Your task to perform on an android device: change your default location settings in chrome Image 0: 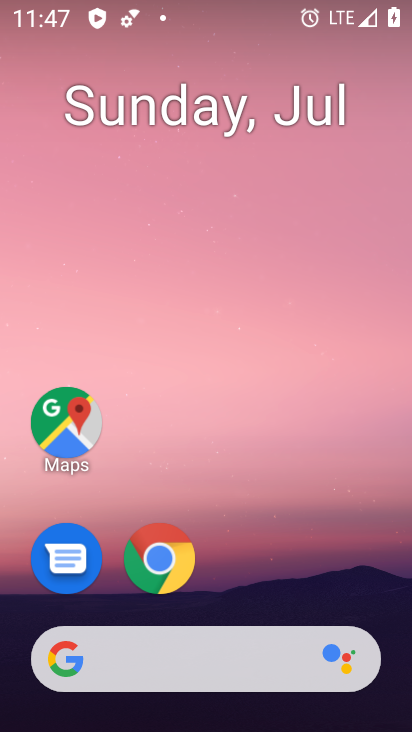
Step 0: click (148, 549)
Your task to perform on an android device: change your default location settings in chrome Image 1: 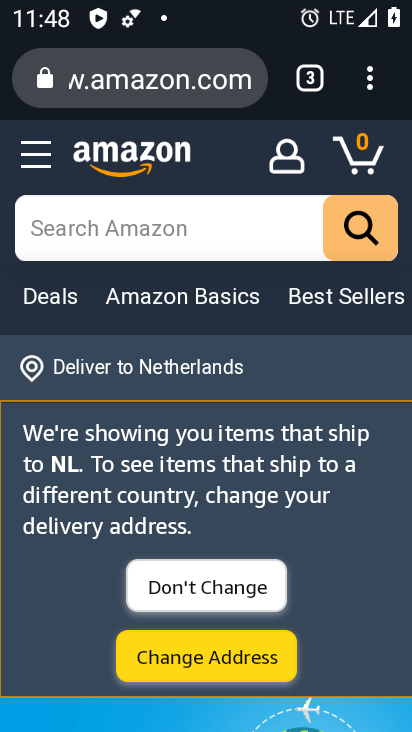
Step 1: click (372, 71)
Your task to perform on an android device: change your default location settings in chrome Image 2: 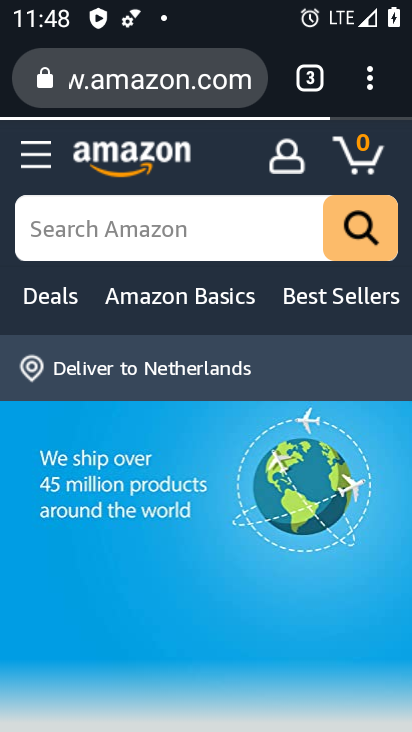
Step 2: click (375, 77)
Your task to perform on an android device: change your default location settings in chrome Image 3: 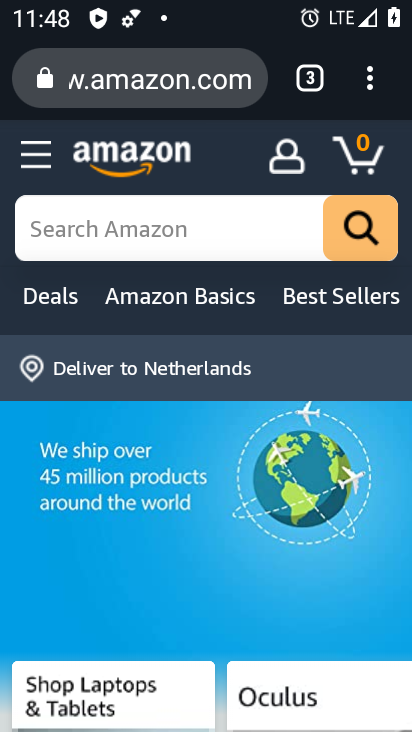
Step 3: drag from (360, 67) to (103, 611)
Your task to perform on an android device: change your default location settings in chrome Image 4: 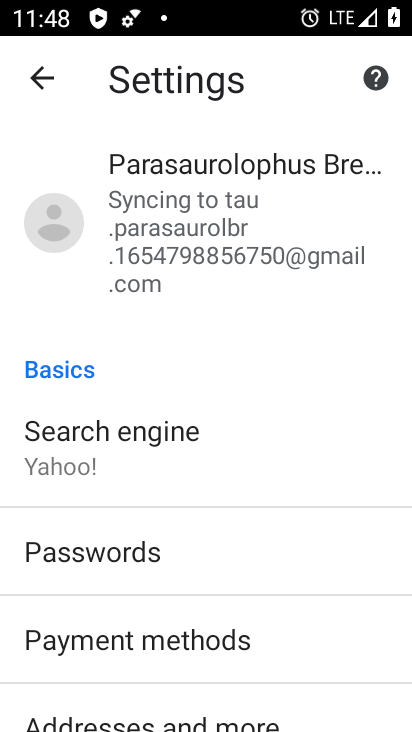
Step 4: drag from (136, 653) to (180, 134)
Your task to perform on an android device: change your default location settings in chrome Image 5: 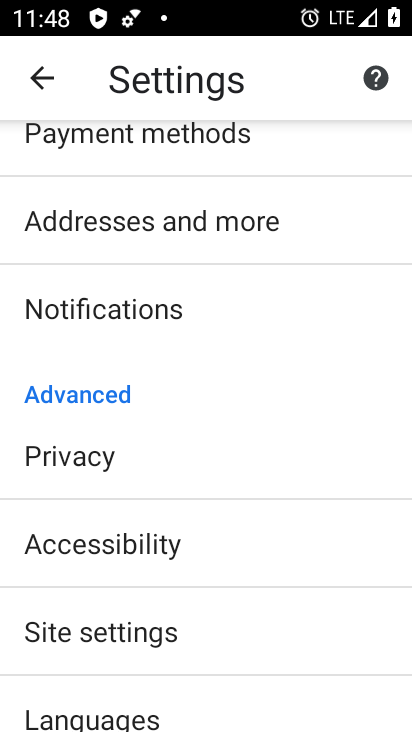
Step 5: click (86, 640)
Your task to perform on an android device: change your default location settings in chrome Image 6: 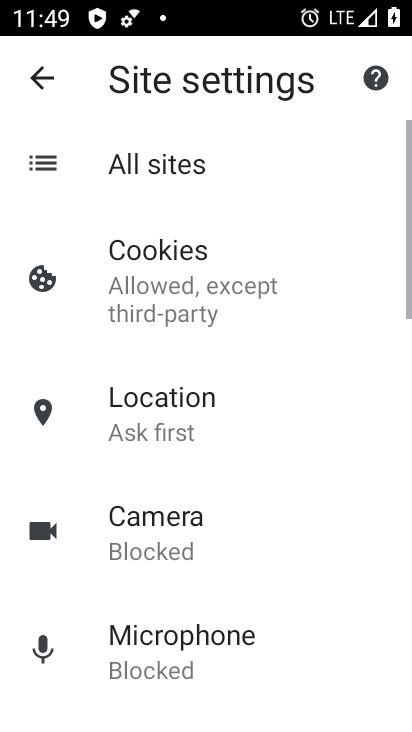
Step 6: click (134, 424)
Your task to perform on an android device: change your default location settings in chrome Image 7: 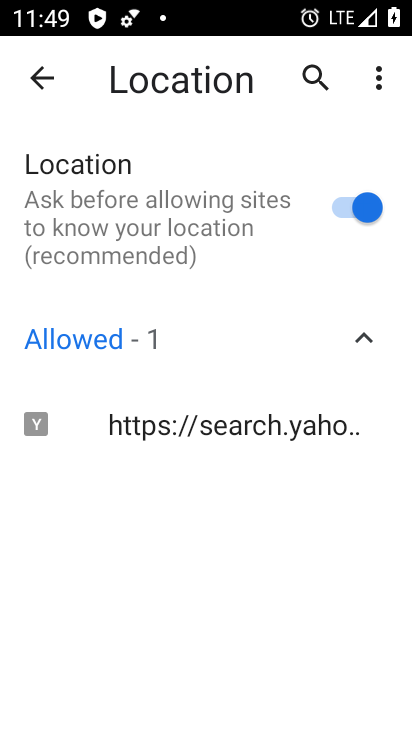
Step 7: click (275, 434)
Your task to perform on an android device: change your default location settings in chrome Image 8: 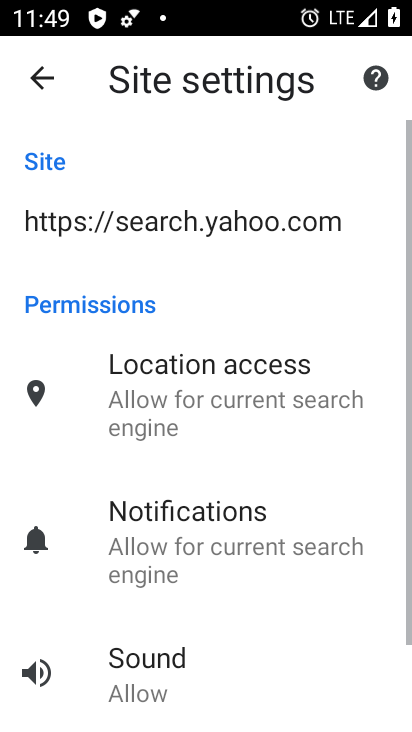
Step 8: click (245, 409)
Your task to perform on an android device: change your default location settings in chrome Image 9: 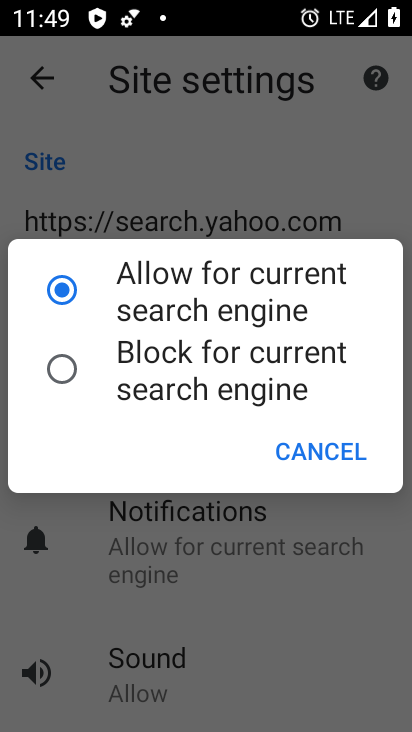
Step 9: click (198, 393)
Your task to perform on an android device: change your default location settings in chrome Image 10: 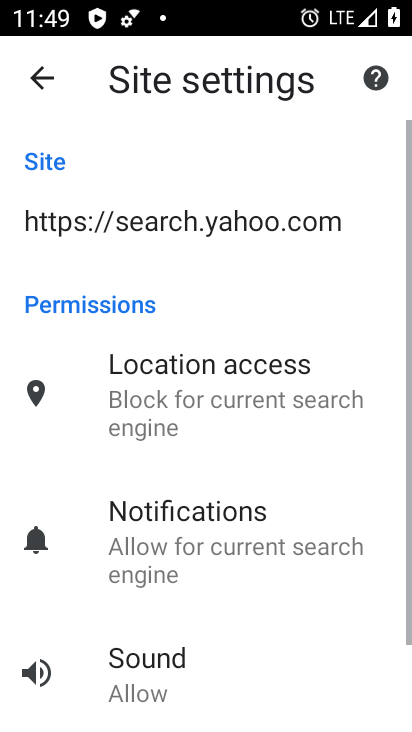
Step 10: task complete